Your task to perform on an android device: check data usage Image 0: 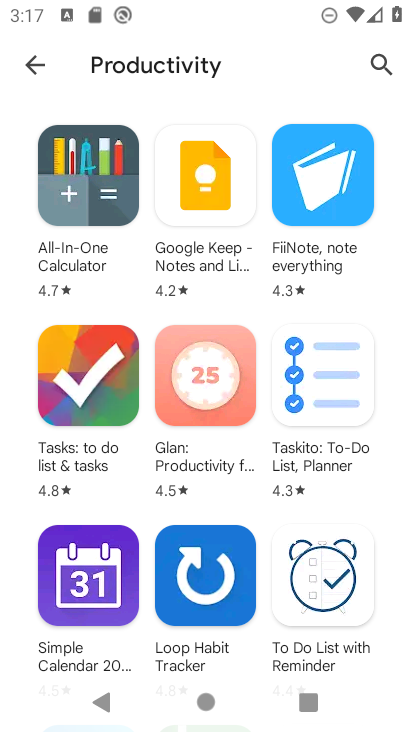
Step 0: press home button
Your task to perform on an android device: check data usage Image 1: 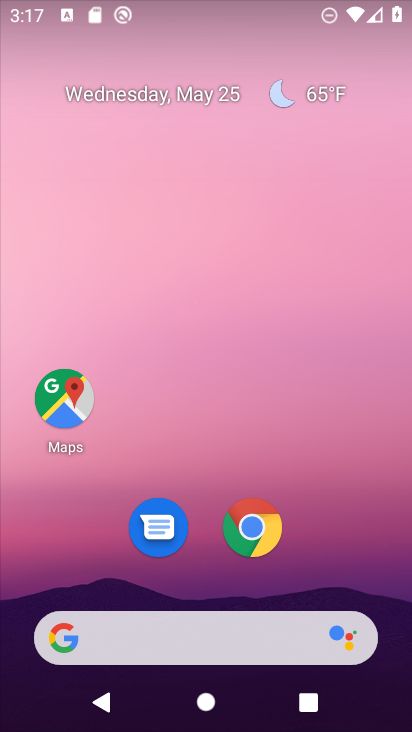
Step 1: drag from (297, 609) to (388, 0)
Your task to perform on an android device: check data usage Image 2: 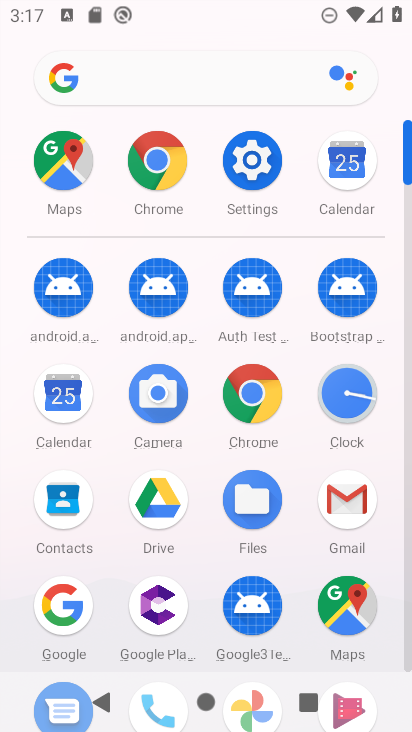
Step 2: click (267, 173)
Your task to perform on an android device: check data usage Image 3: 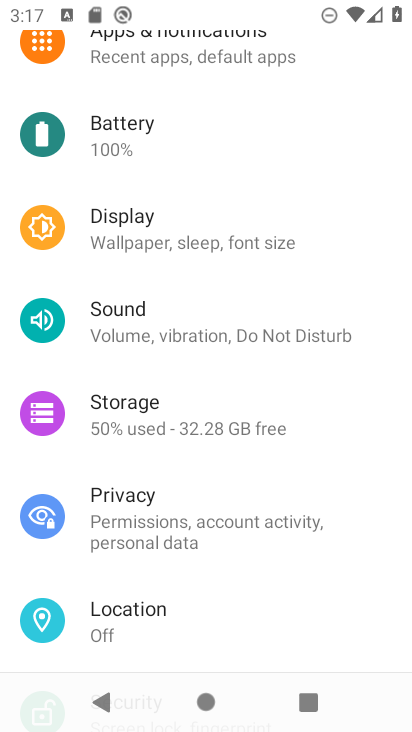
Step 3: drag from (267, 173) to (324, 726)
Your task to perform on an android device: check data usage Image 4: 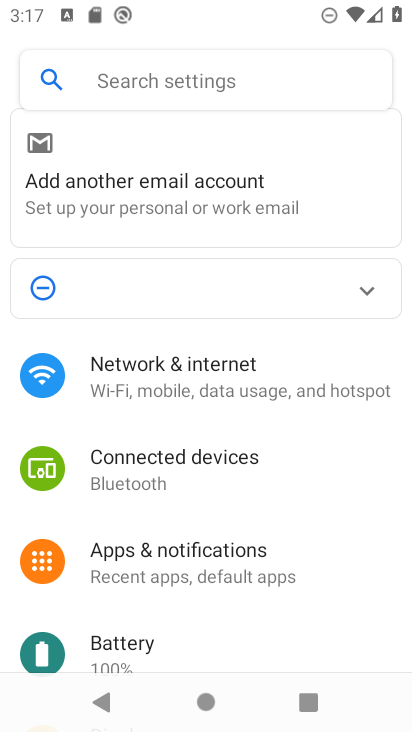
Step 4: click (217, 364)
Your task to perform on an android device: check data usage Image 5: 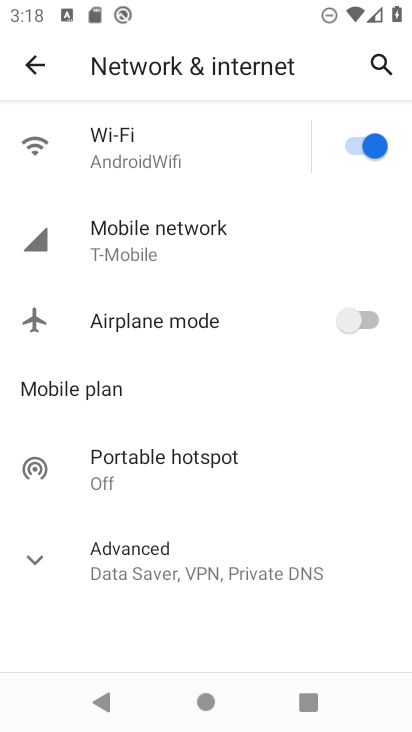
Step 5: click (178, 245)
Your task to perform on an android device: check data usage Image 6: 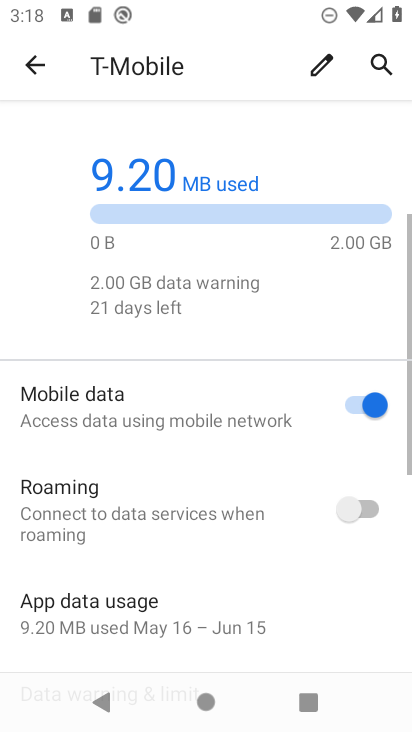
Step 6: drag from (123, 602) to (142, 243)
Your task to perform on an android device: check data usage Image 7: 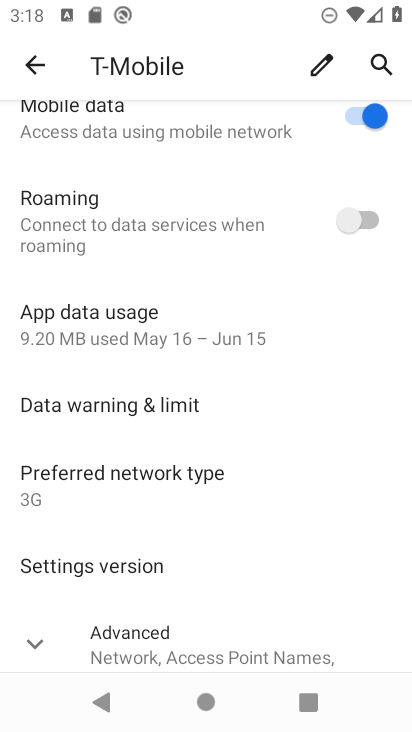
Step 7: click (199, 336)
Your task to perform on an android device: check data usage Image 8: 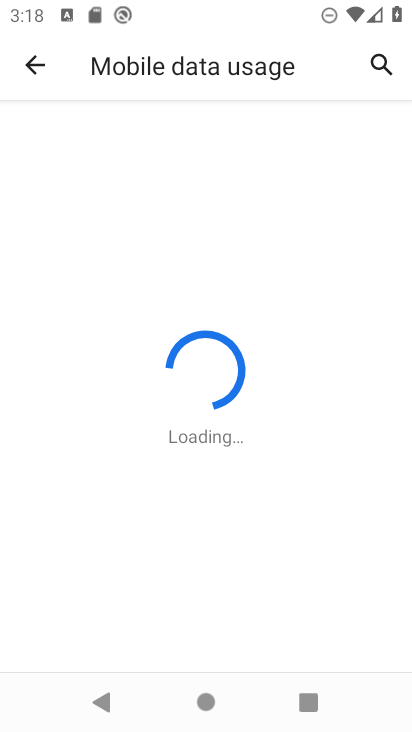
Step 8: task complete